Your task to perform on an android device: Do I have any events tomorrow? Image 0: 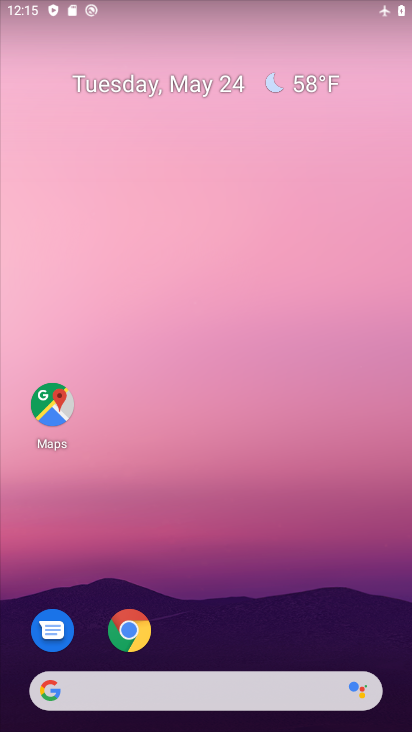
Step 0: drag from (244, 637) to (157, 340)
Your task to perform on an android device: Do I have any events tomorrow? Image 1: 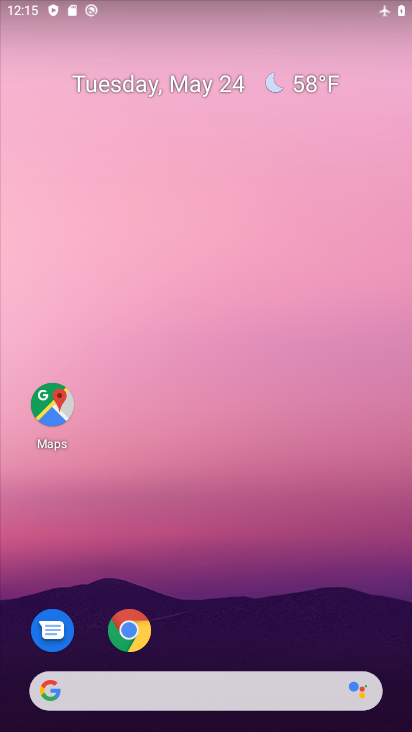
Step 1: drag from (266, 608) to (189, 171)
Your task to perform on an android device: Do I have any events tomorrow? Image 2: 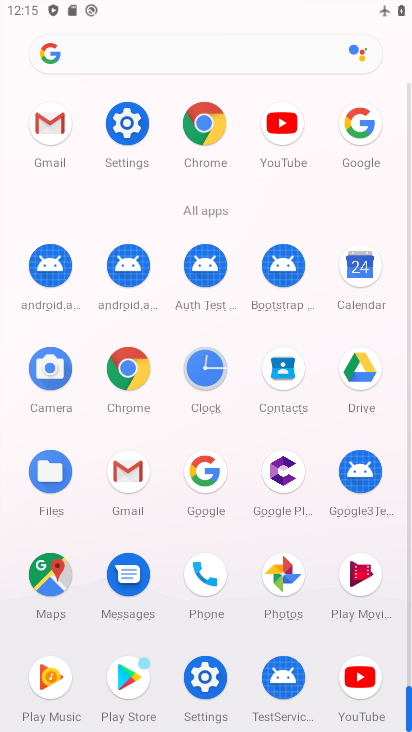
Step 2: click (360, 266)
Your task to perform on an android device: Do I have any events tomorrow? Image 3: 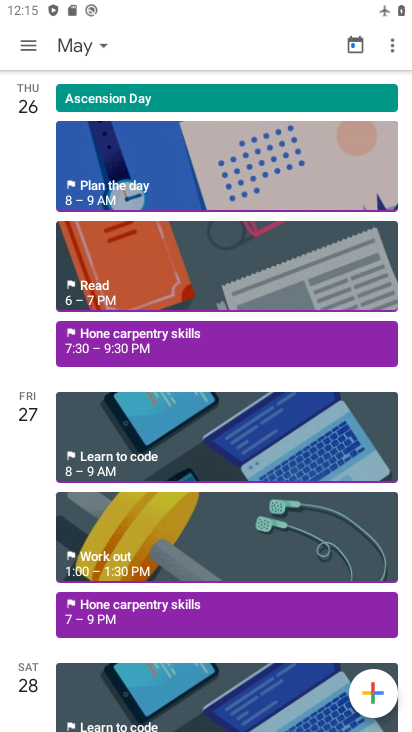
Step 3: click (102, 49)
Your task to perform on an android device: Do I have any events tomorrow? Image 4: 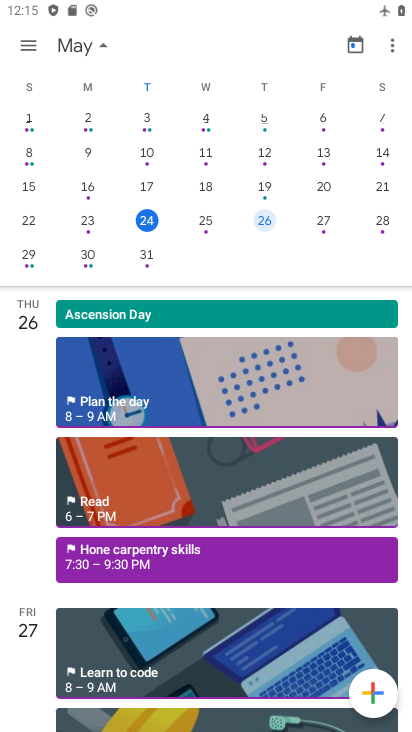
Step 4: click (357, 44)
Your task to perform on an android device: Do I have any events tomorrow? Image 5: 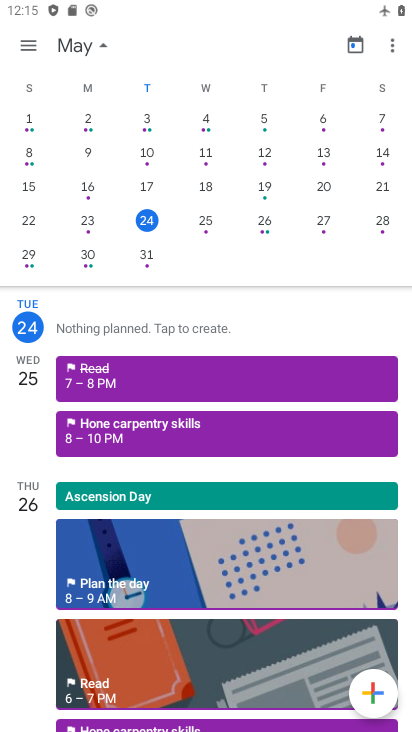
Step 5: click (212, 222)
Your task to perform on an android device: Do I have any events tomorrow? Image 6: 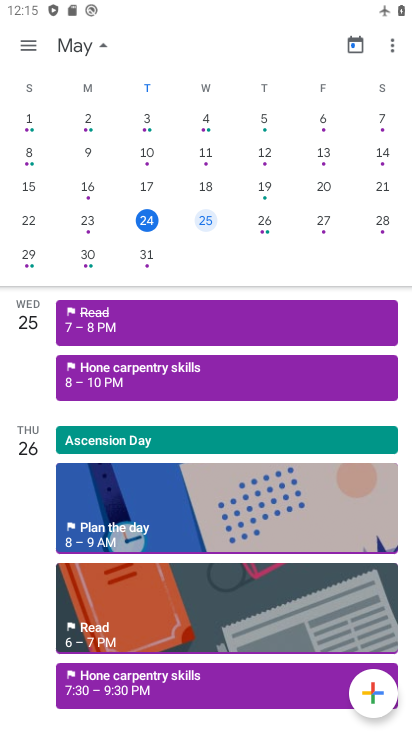
Step 6: click (195, 337)
Your task to perform on an android device: Do I have any events tomorrow? Image 7: 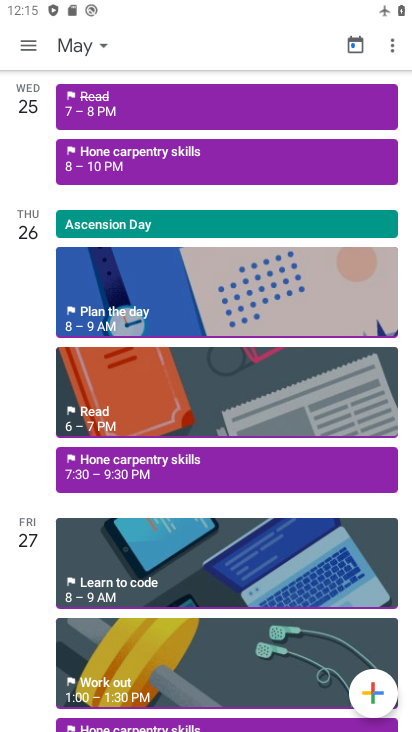
Step 7: task complete